Your task to perform on an android device: find snoozed emails in the gmail app Image 0: 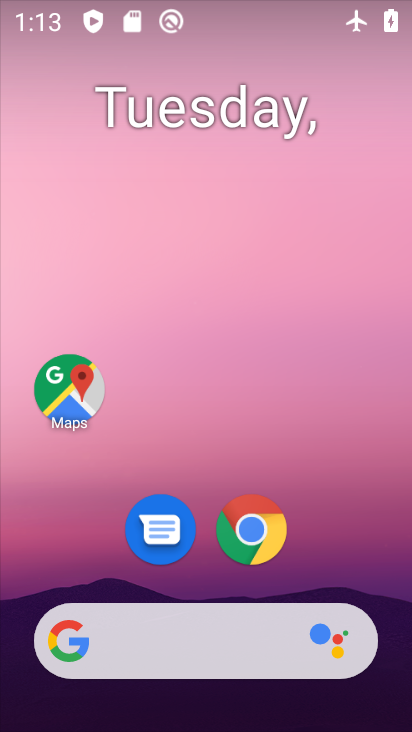
Step 0: drag from (397, 569) to (376, 137)
Your task to perform on an android device: find snoozed emails in the gmail app Image 1: 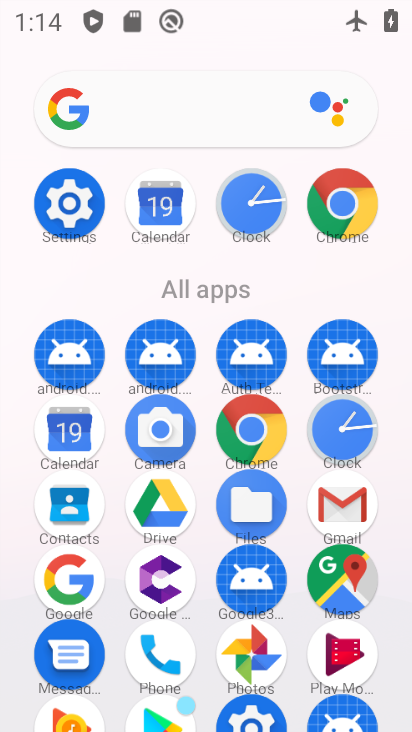
Step 1: click (354, 496)
Your task to perform on an android device: find snoozed emails in the gmail app Image 2: 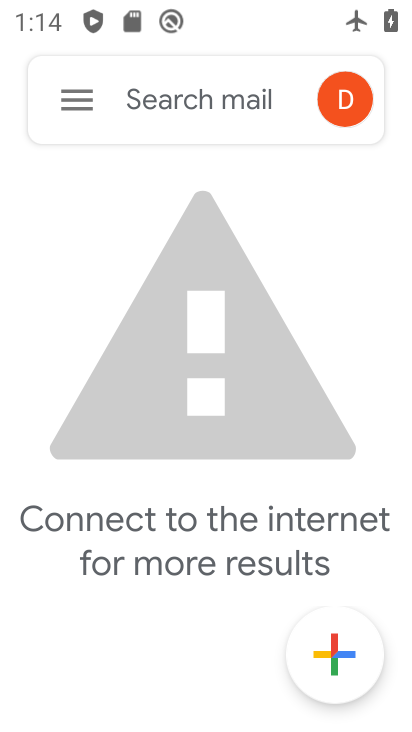
Step 2: click (82, 99)
Your task to perform on an android device: find snoozed emails in the gmail app Image 3: 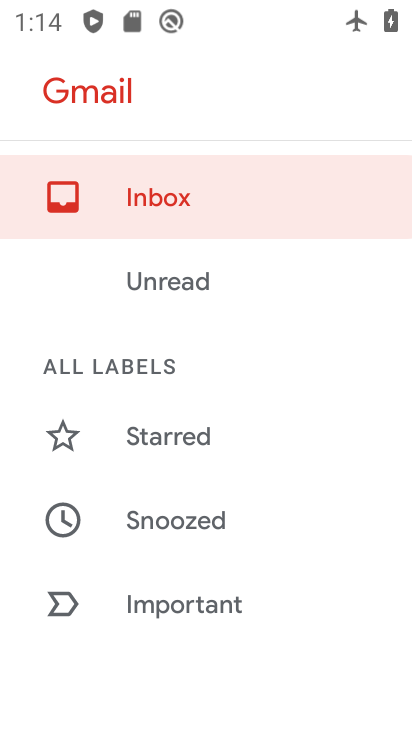
Step 3: click (243, 530)
Your task to perform on an android device: find snoozed emails in the gmail app Image 4: 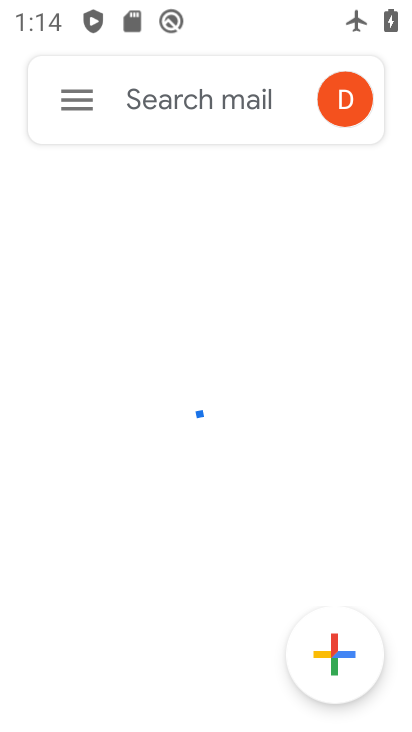
Step 4: task complete